Your task to perform on an android device: Open eBay Image 0: 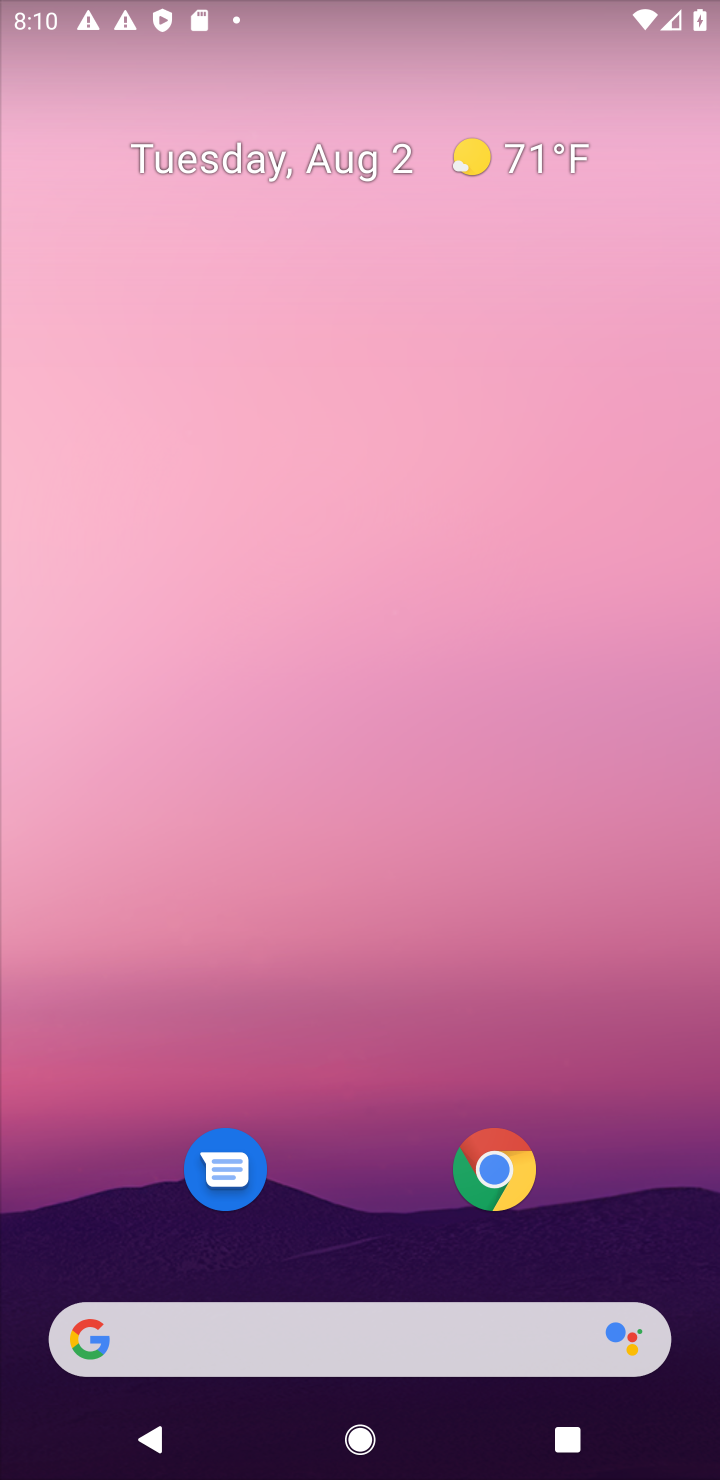
Step 0: click (377, 1344)
Your task to perform on an android device: Open eBay Image 1: 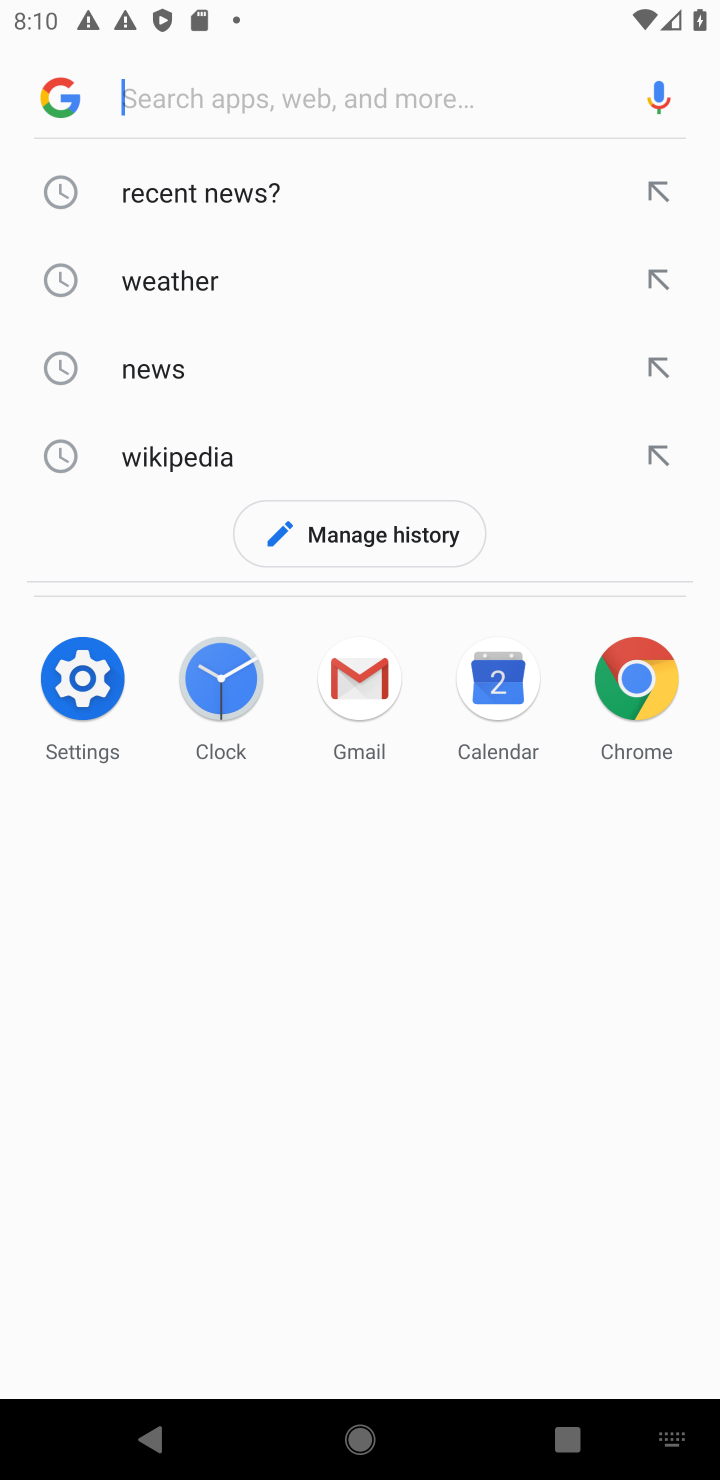
Step 1: type "ebay"
Your task to perform on an android device: Open eBay Image 2: 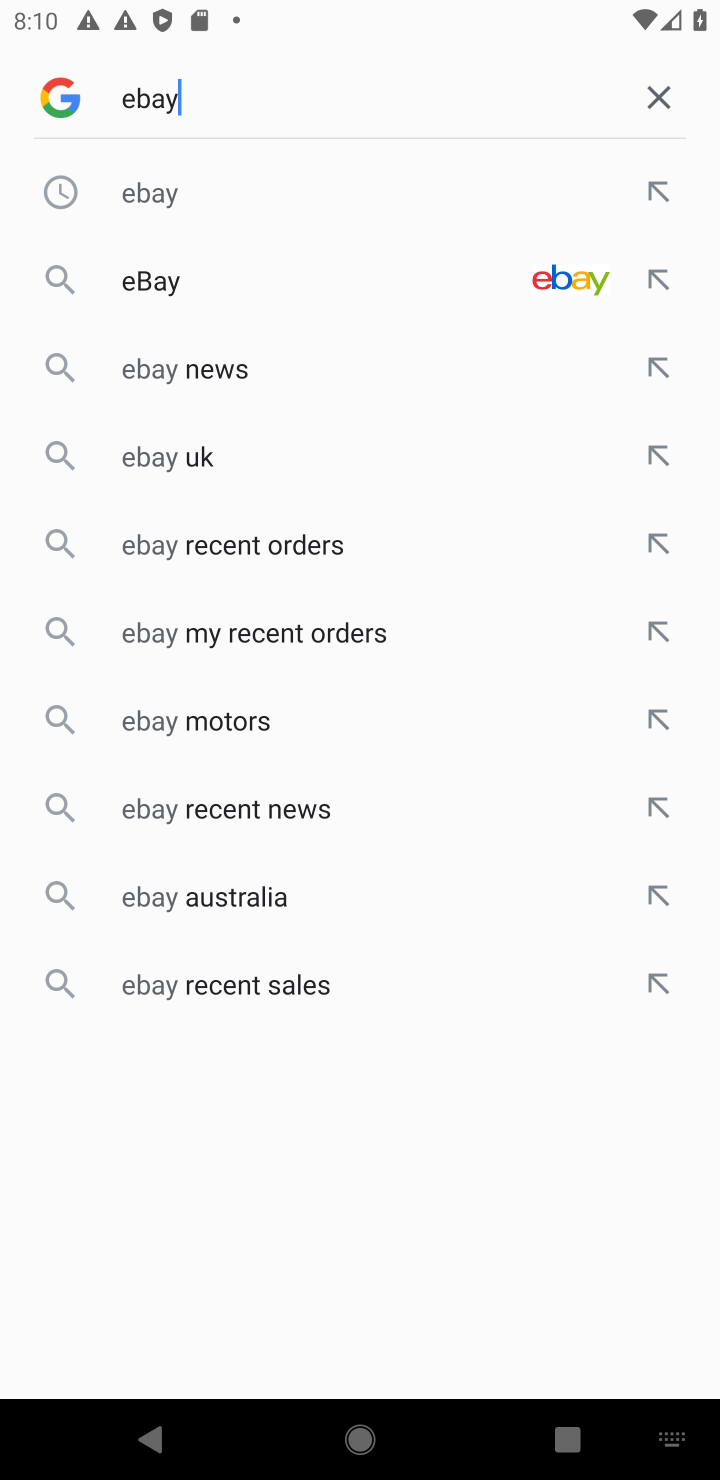
Step 2: click (473, 271)
Your task to perform on an android device: Open eBay Image 3: 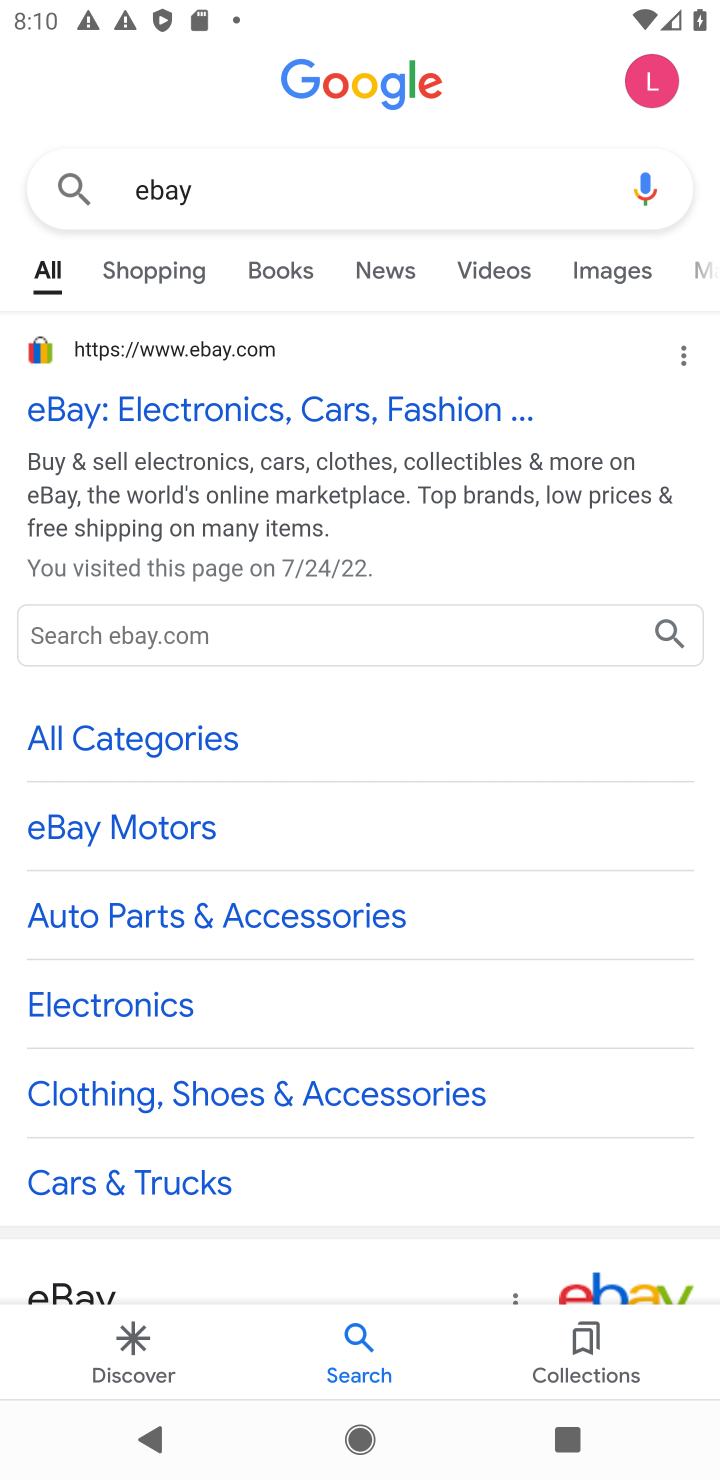
Step 3: click (442, 401)
Your task to perform on an android device: Open eBay Image 4: 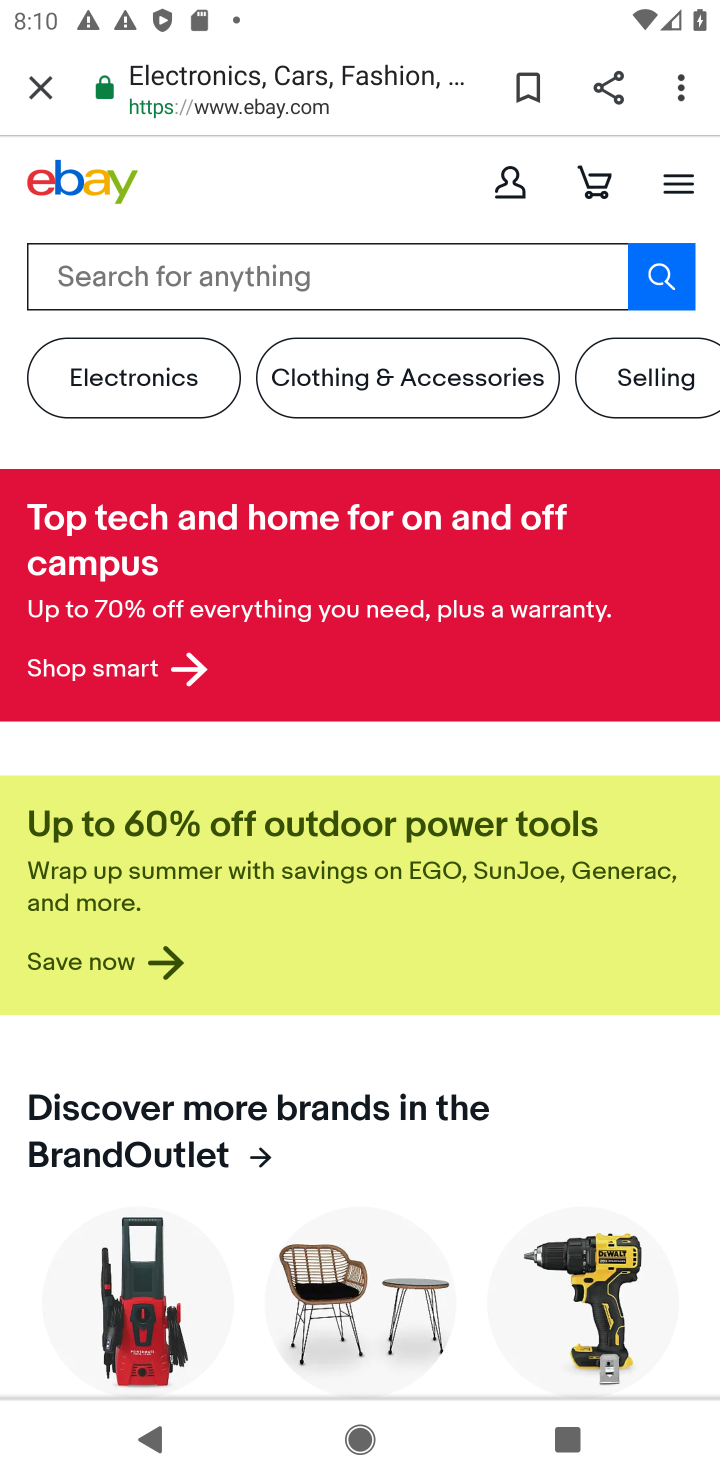
Step 4: task complete